Your task to perform on an android device: change the clock display to show seconds Image 0: 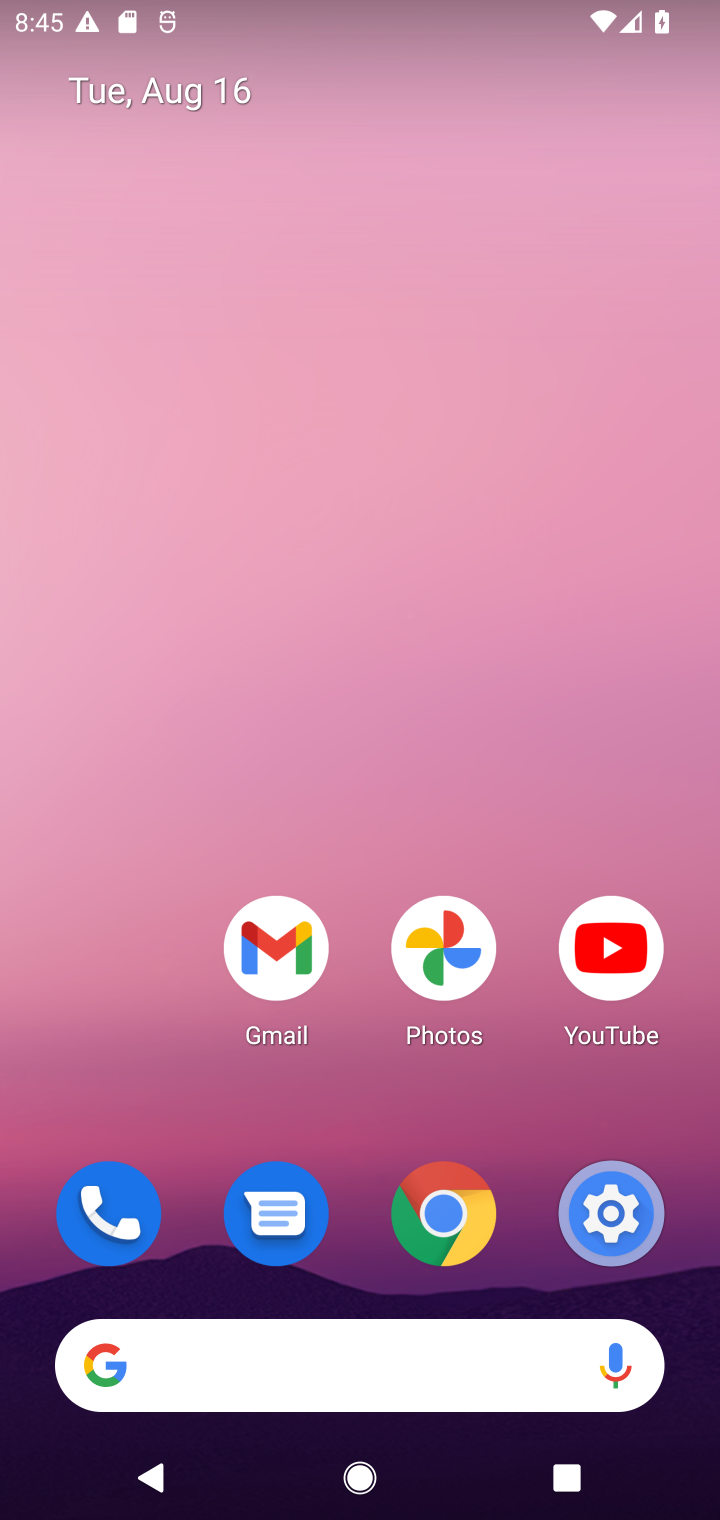
Step 0: press home button
Your task to perform on an android device: change the clock display to show seconds Image 1: 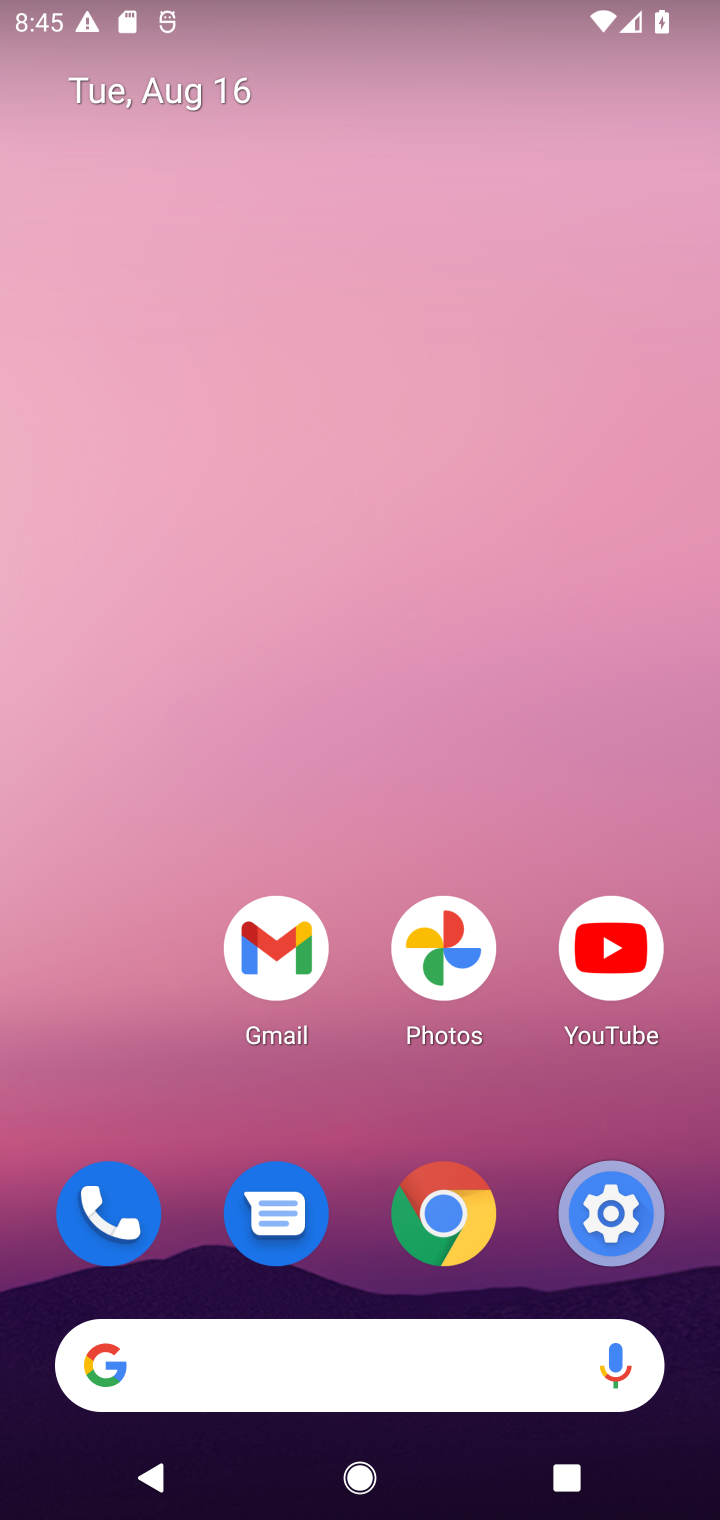
Step 1: drag from (556, 231) to (559, 66)
Your task to perform on an android device: change the clock display to show seconds Image 2: 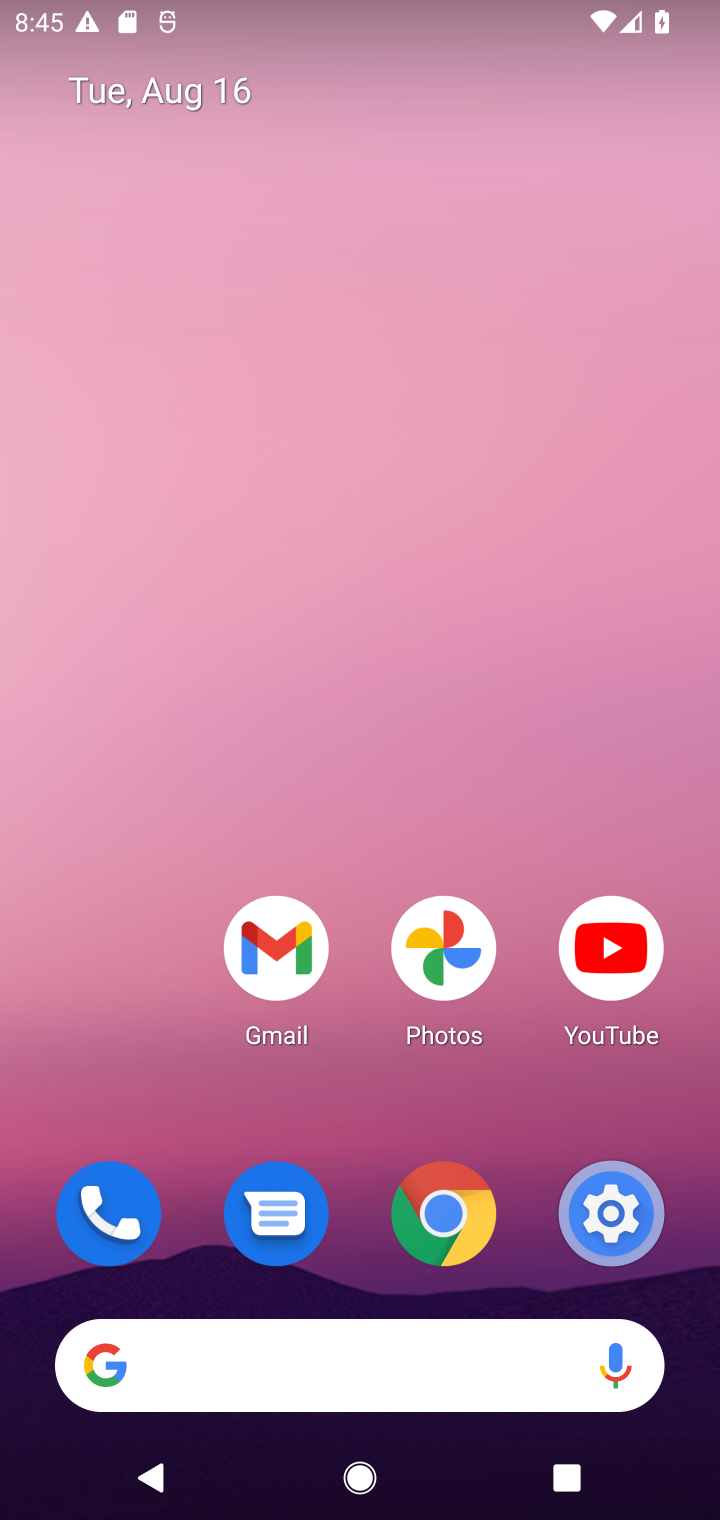
Step 2: drag from (397, 802) to (568, 26)
Your task to perform on an android device: change the clock display to show seconds Image 3: 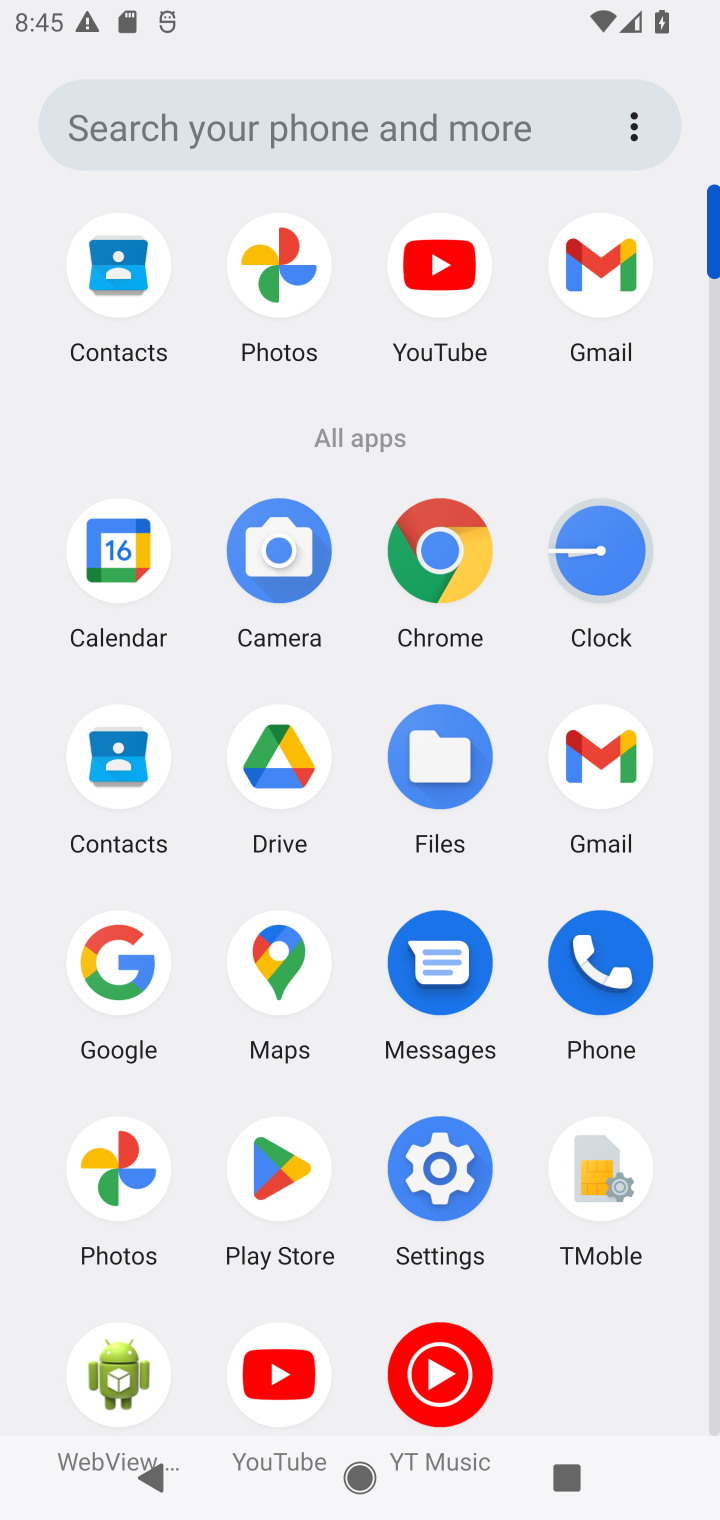
Step 3: click (608, 551)
Your task to perform on an android device: change the clock display to show seconds Image 4: 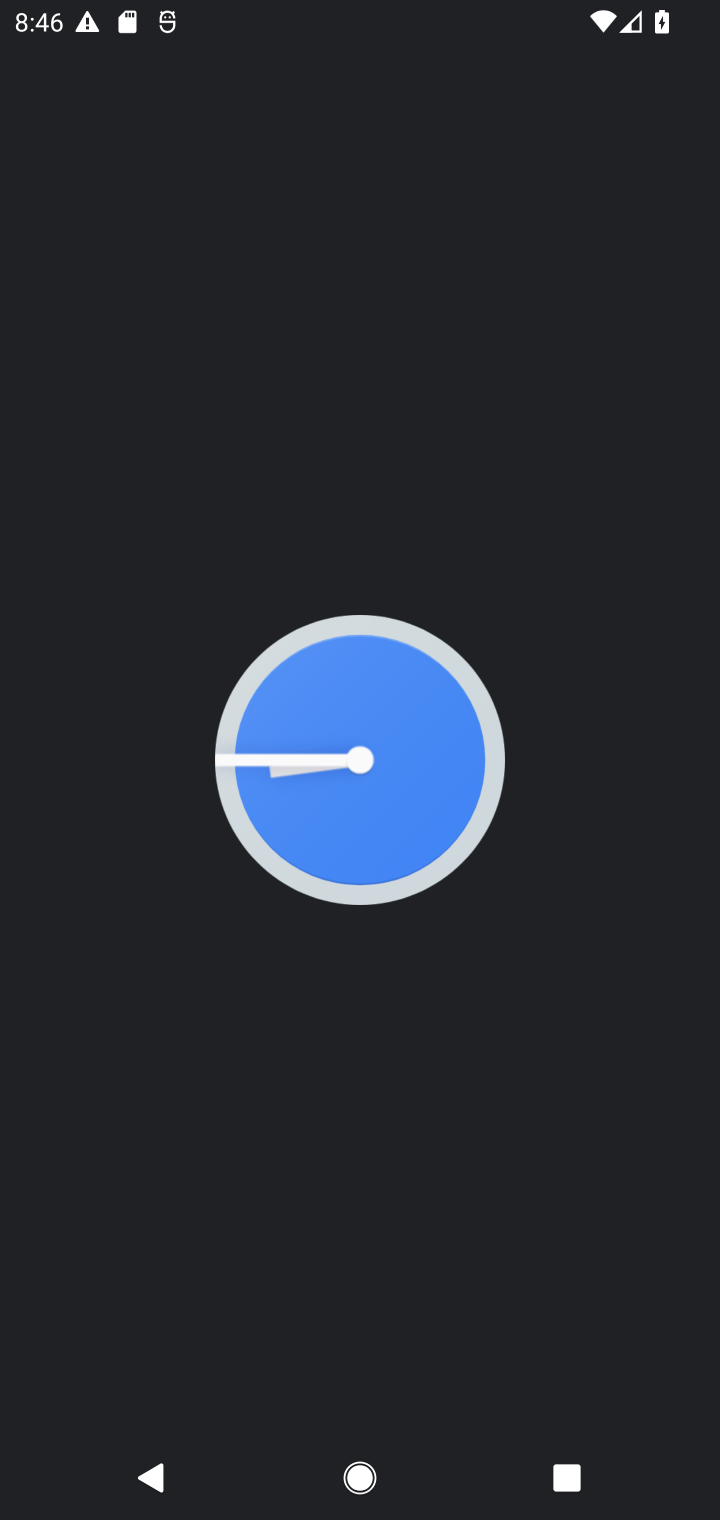
Step 4: click (319, 770)
Your task to perform on an android device: change the clock display to show seconds Image 5: 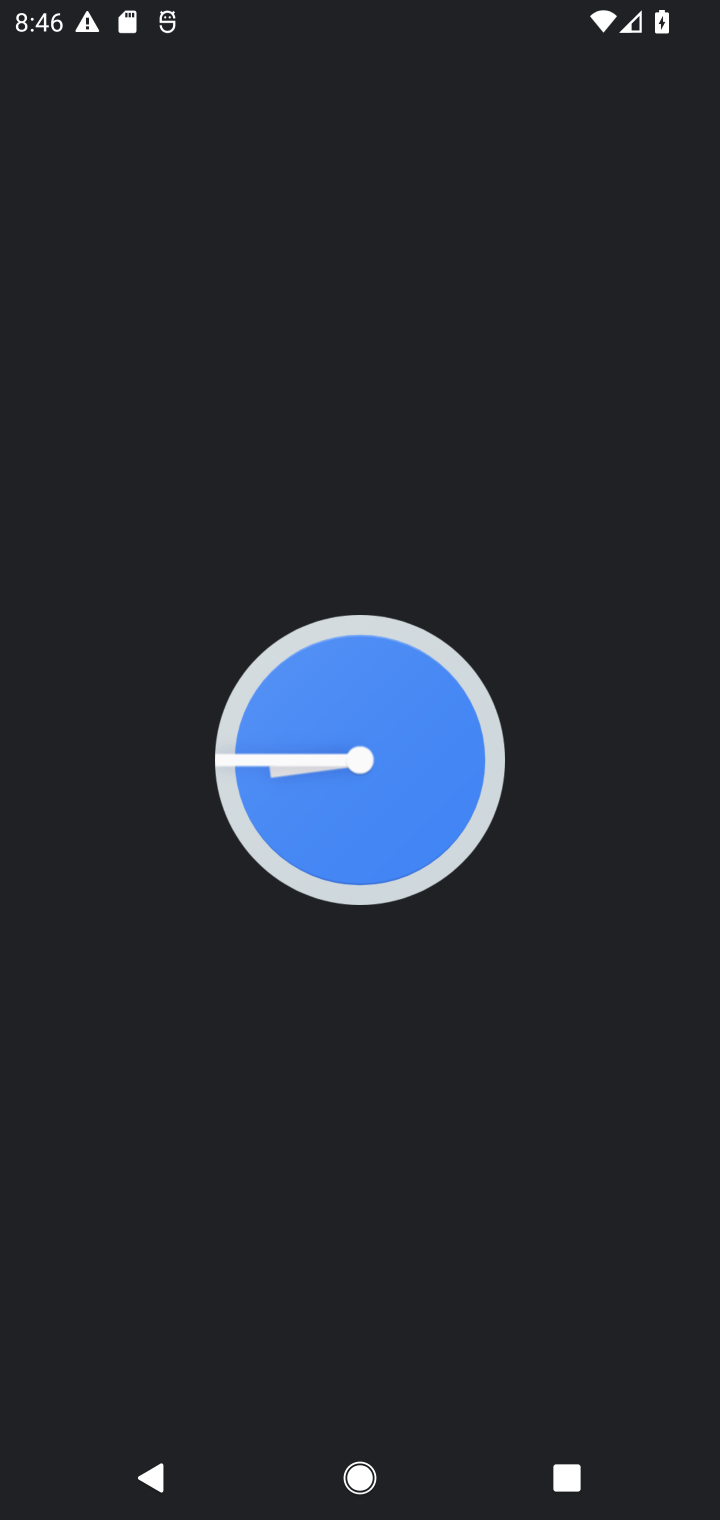
Step 5: press back button
Your task to perform on an android device: change the clock display to show seconds Image 6: 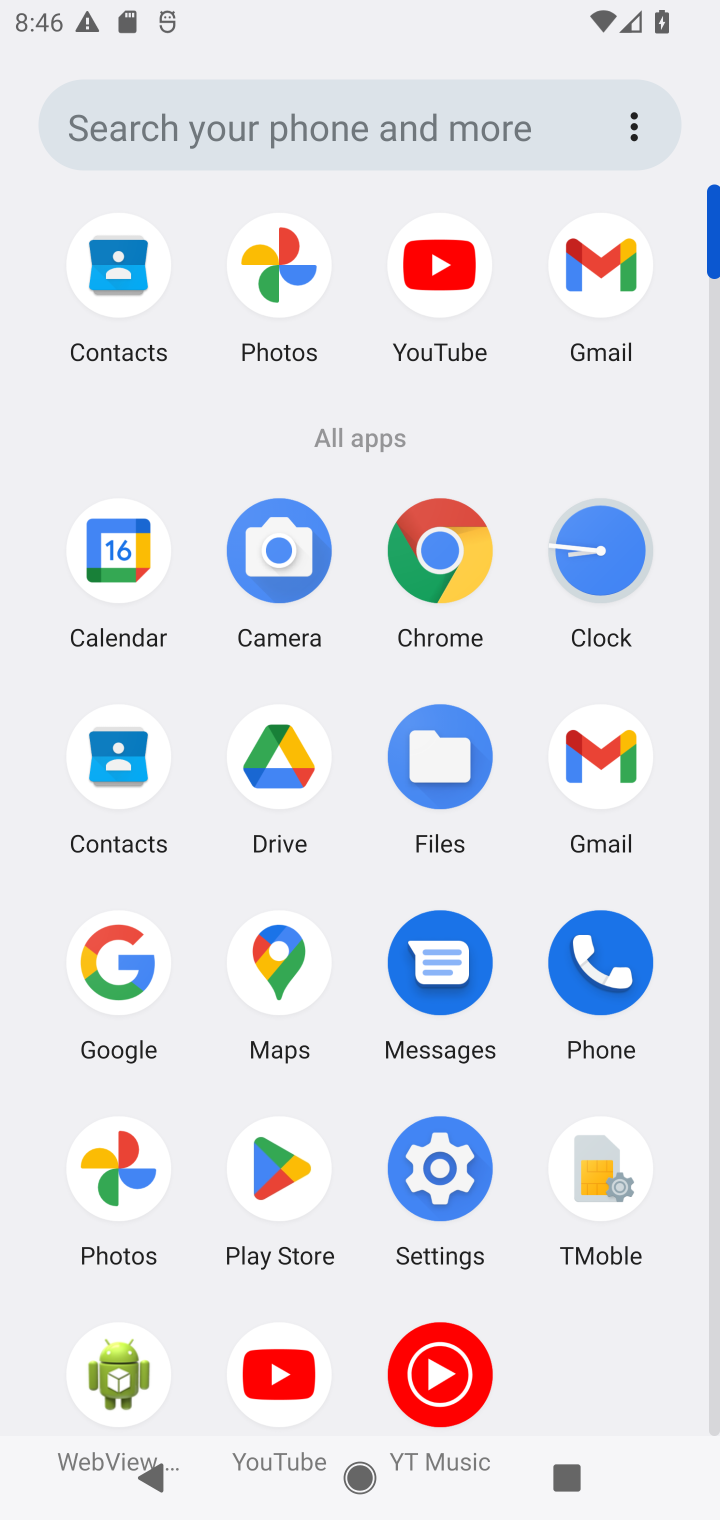
Step 6: click (578, 535)
Your task to perform on an android device: change the clock display to show seconds Image 7: 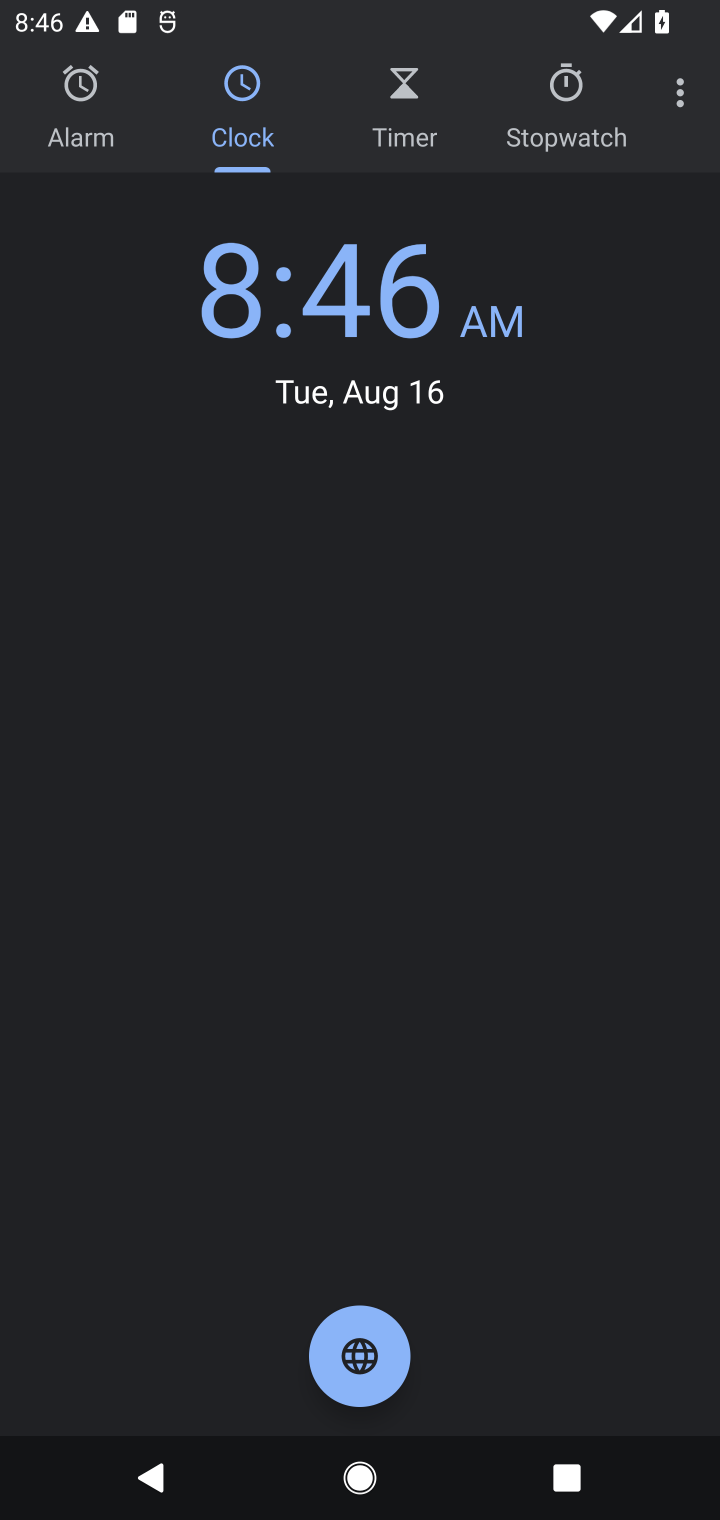
Step 7: click (679, 104)
Your task to perform on an android device: change the clock display to show seconds Image 8: 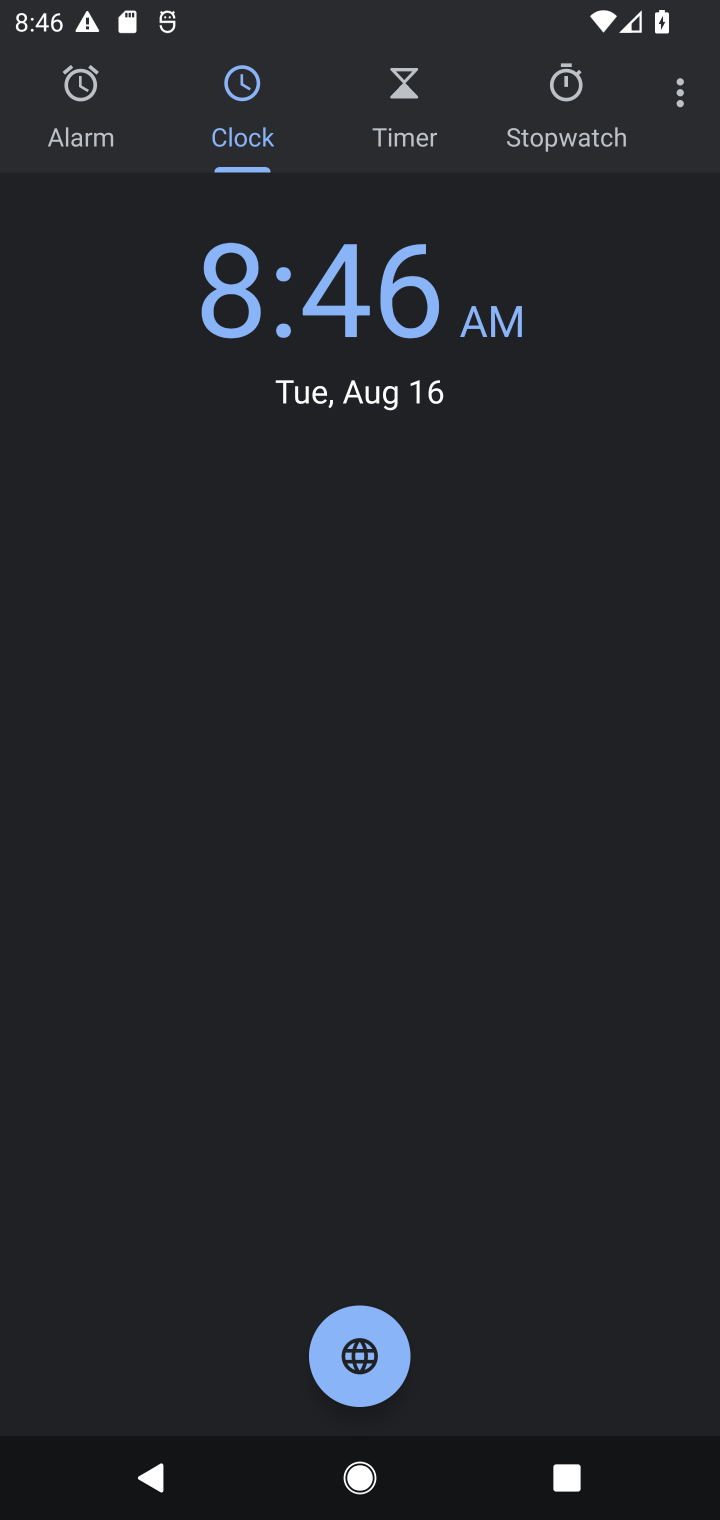
Step 8: click (681, 102)
Your task to perform on an android device: change the clock display to show seconds Image 9: 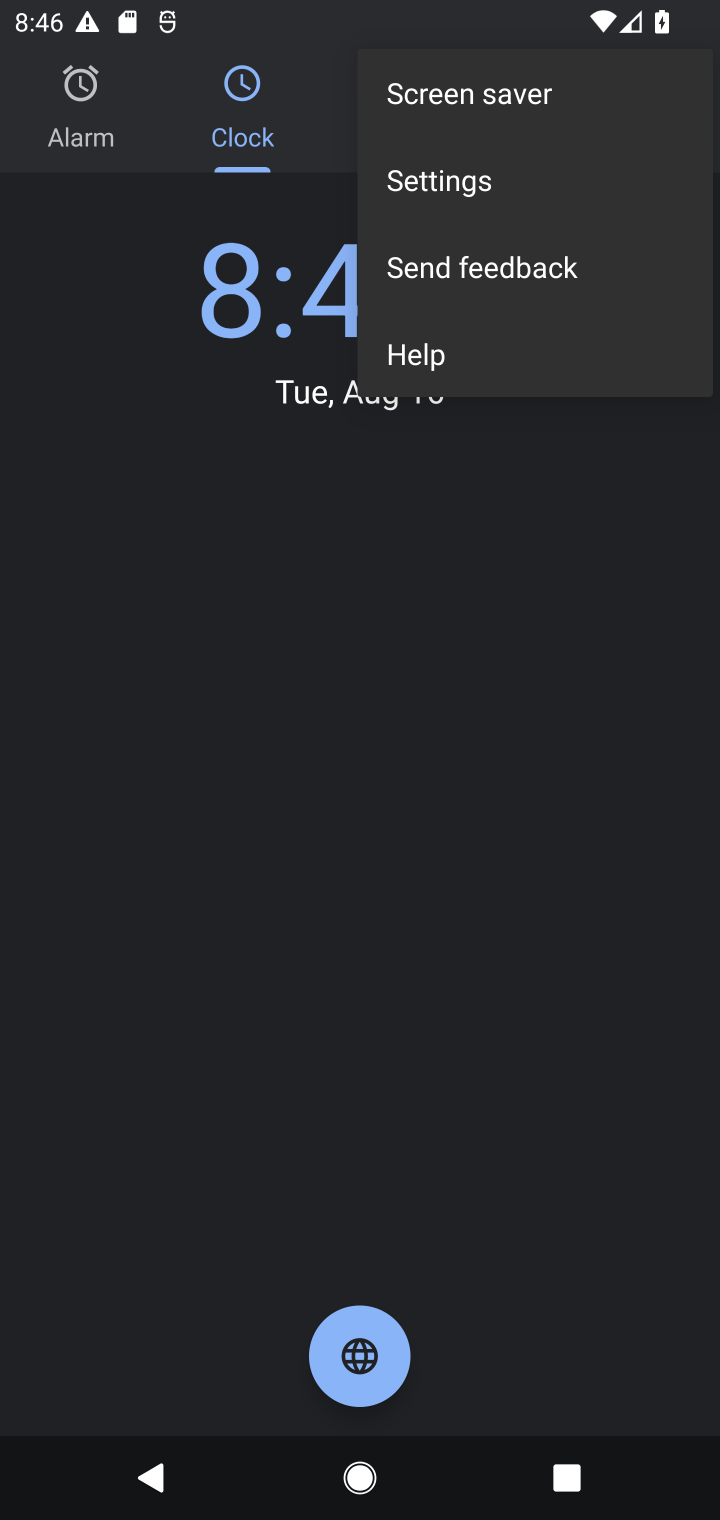
Step 9: click (493, 182)
Your task to perform on an android device: change the clock display to show seconds Image 10: 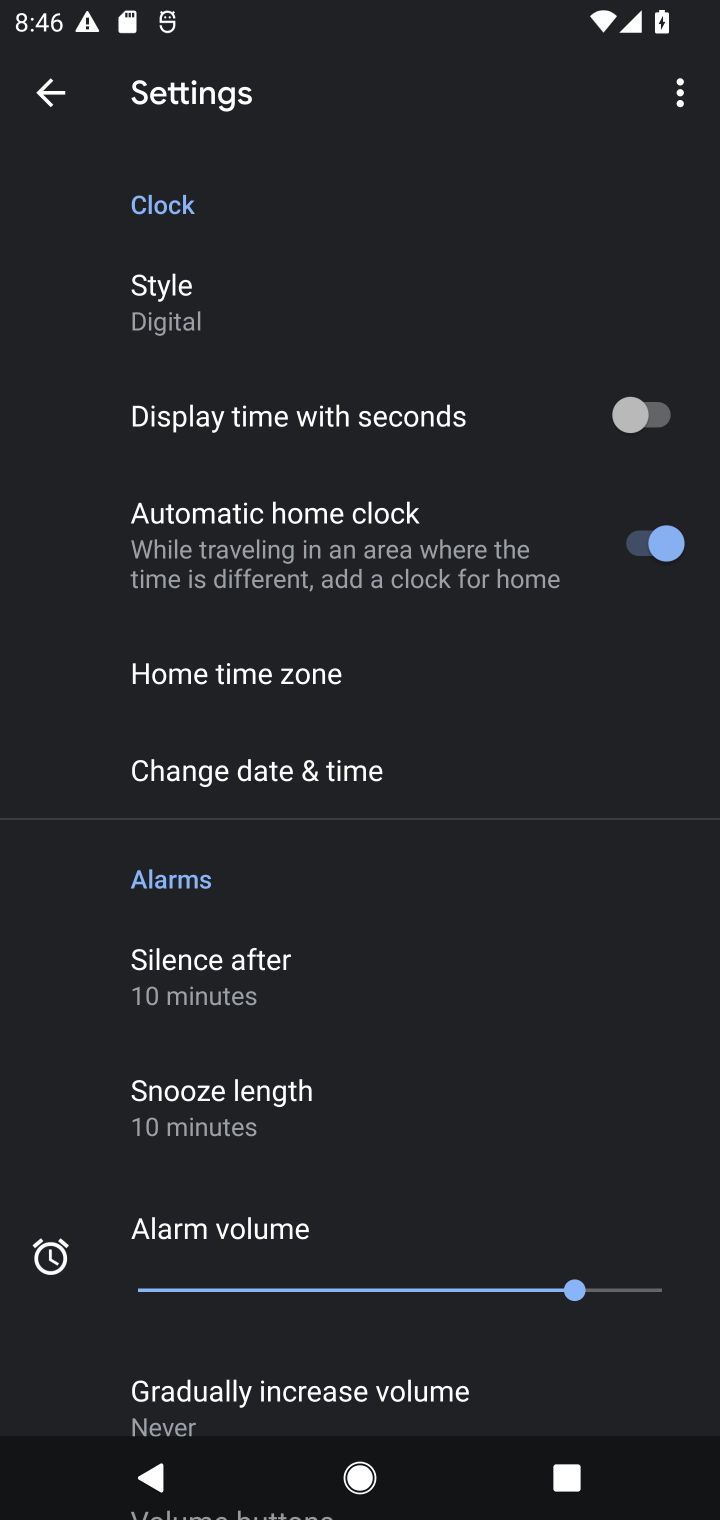
Step 10: click (641, 403)
Your task to perform on an android device: change the clock display to show seconds Image 11: 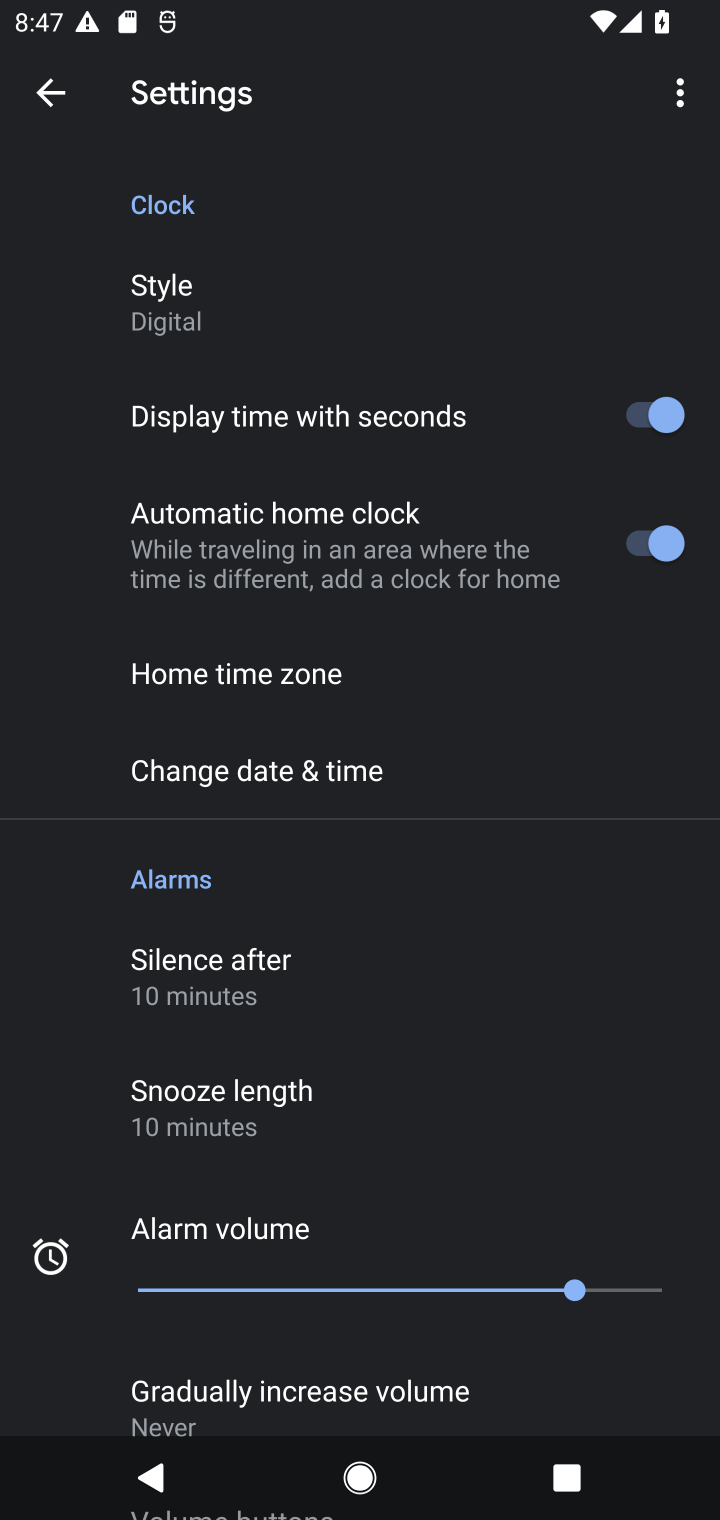
Step 11: task complete